Your task to perform on an android device: Turn off the flashlight Image 0: 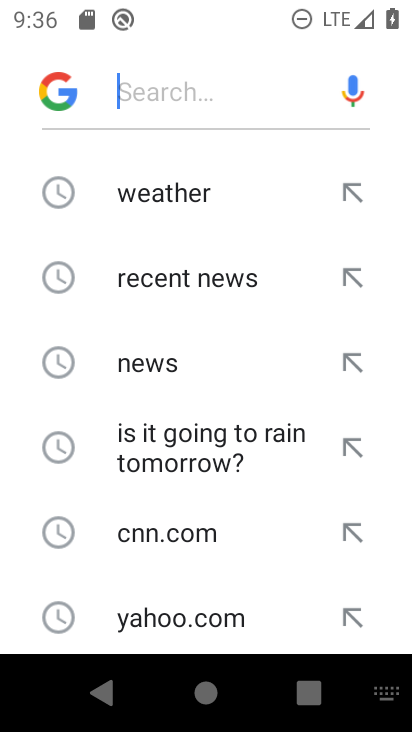
Step 0: drag from (254, 14) to (245, 579)
Your task to perform on an android device: Turn off the flashlight Image 1: 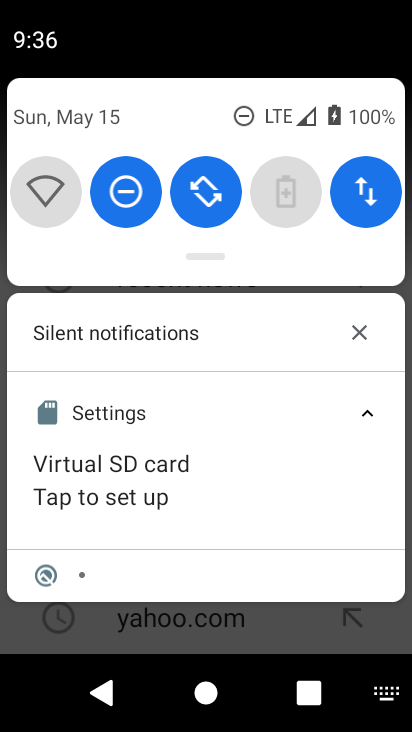
Step 1: drag from (187, 86) to (274, 579)
Your task to perform on an android device: Turn off the flashlight Image 2: 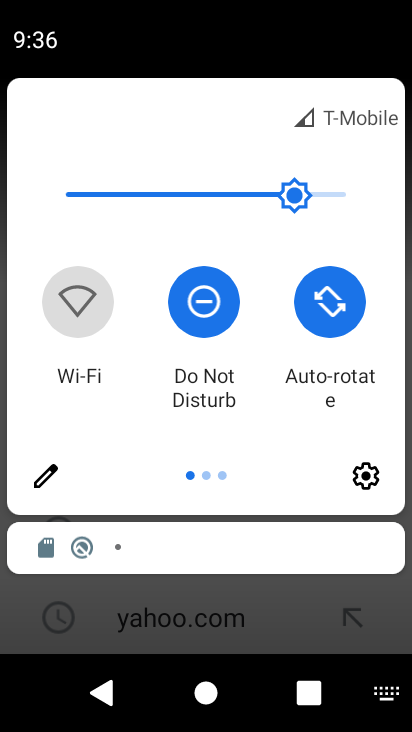
Step 2: click (367, 493)
Your task to perform on an android device: Turn off the flashlight Image 3: 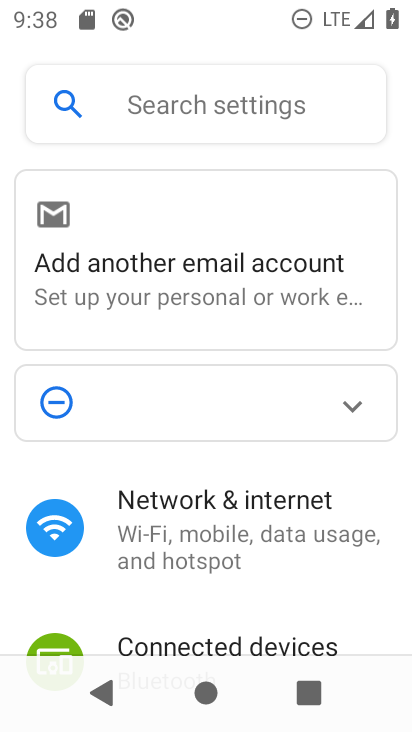
Step 3: task complete